Your task to perform on an android device: empty trash in google photos Image 0: 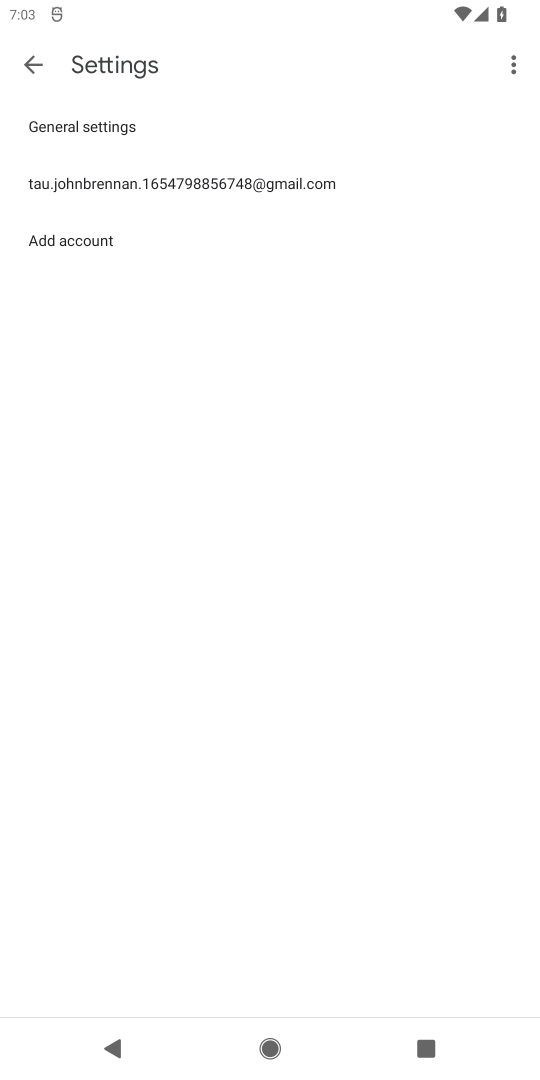
Step 0: press home button
Your task to perform on an android device: empty trash in google photos Image 1: 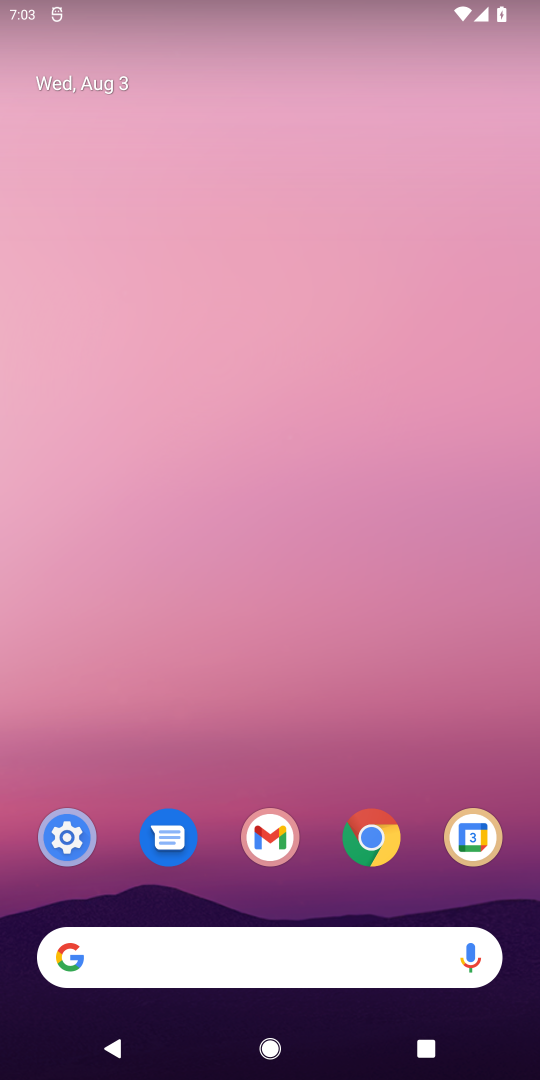
Step 1: drag from (348, 740) to (310, 127)
Your task to perform on an android device: empty trash in google photos Image 2: 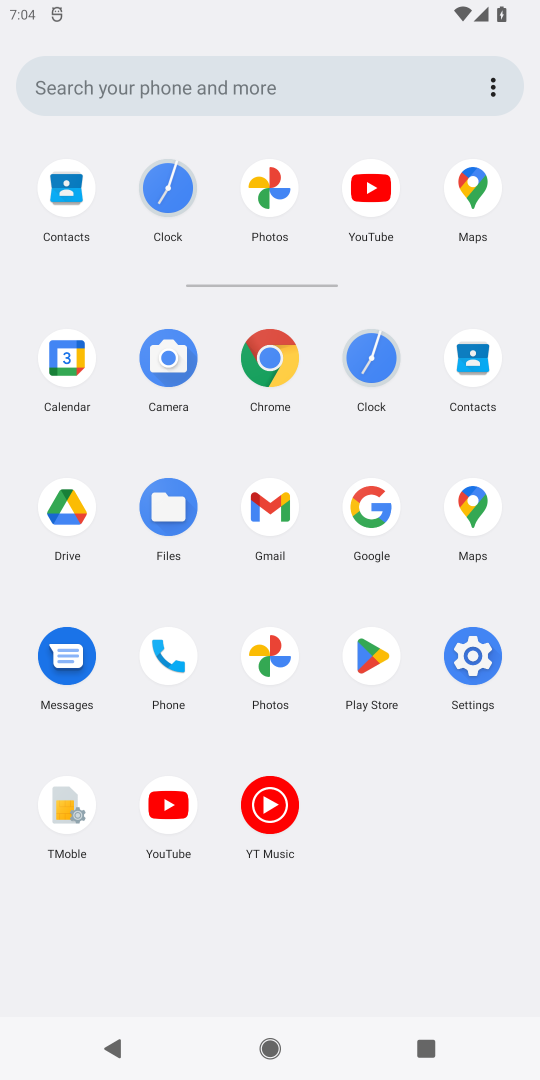
Step 2: click (283, 654)
Your task to perform on an android device: empty trash in google photos Image 3: 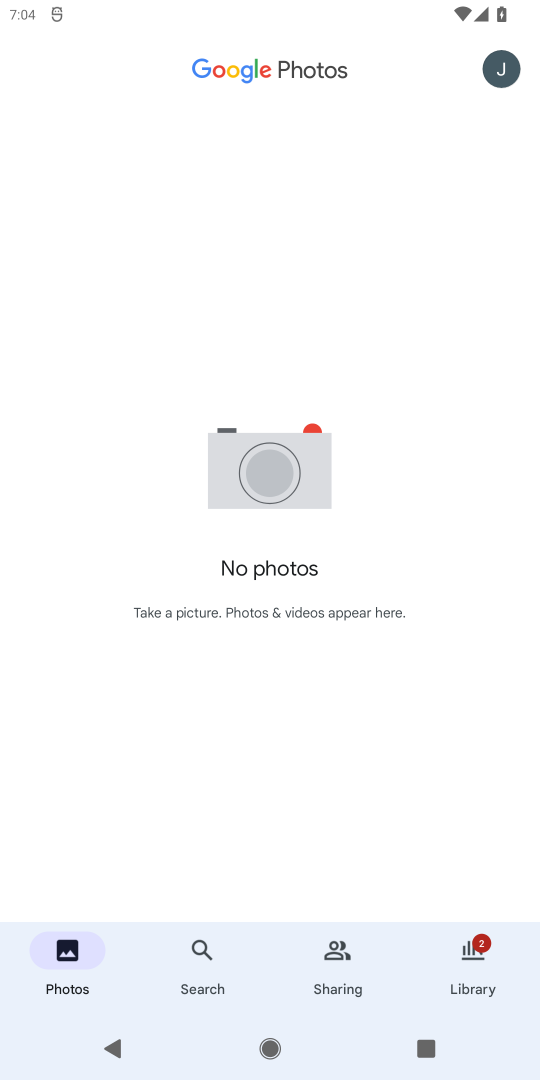
Step 3: click (455, 965)
Your task to perform on an android device: empty trash in google photos Image 4: 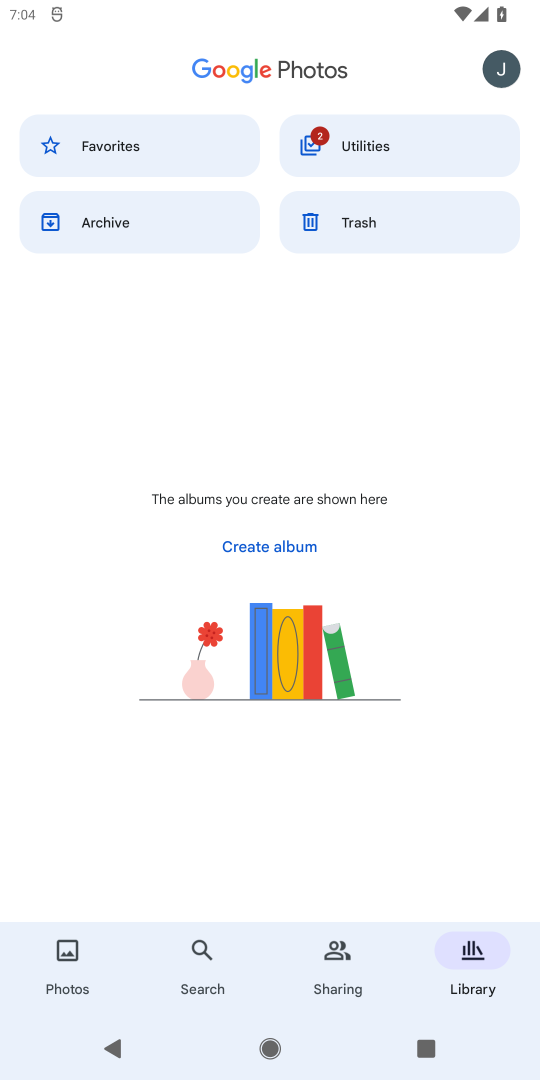
Step 4: click (353, 232)
Your task to perform on an android device: empty trash in google photos Image 5: 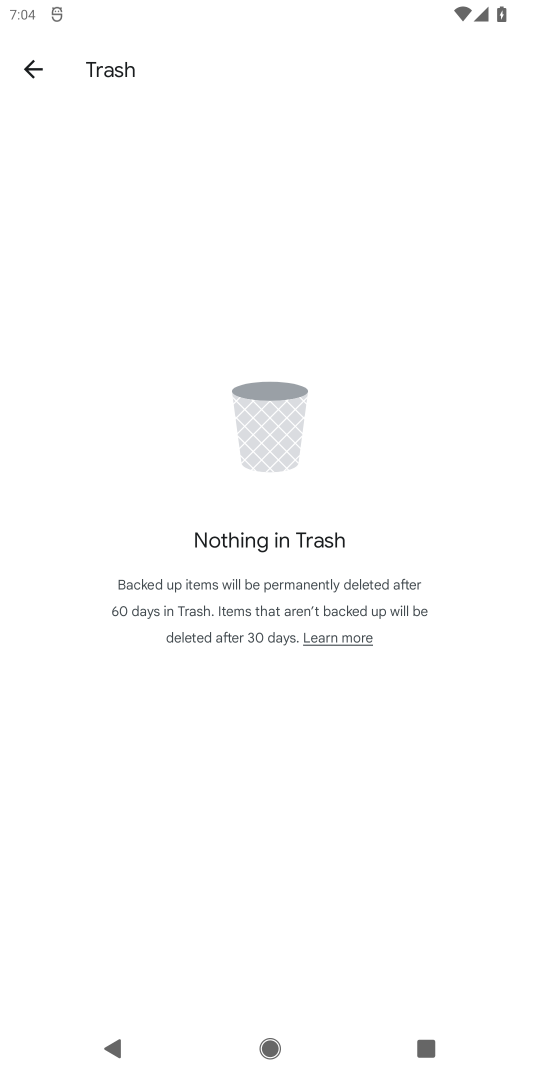
Step 5: task complete